Your task to perform on an android device: Go to Amazon Image 0: 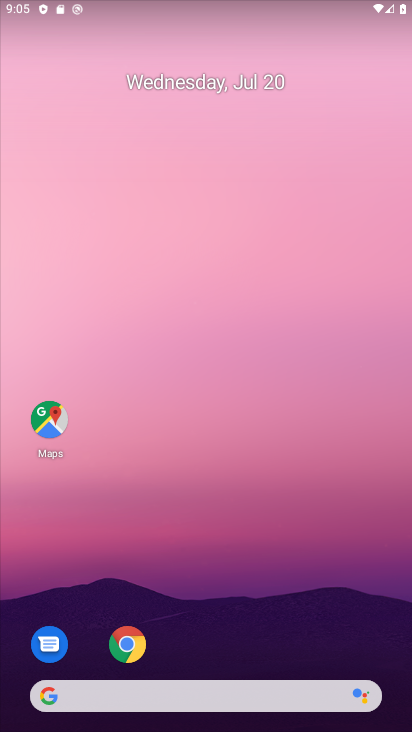
Step 0: click (183, 692)
Your task to perform on an android device: Go to Amazon Image 1: 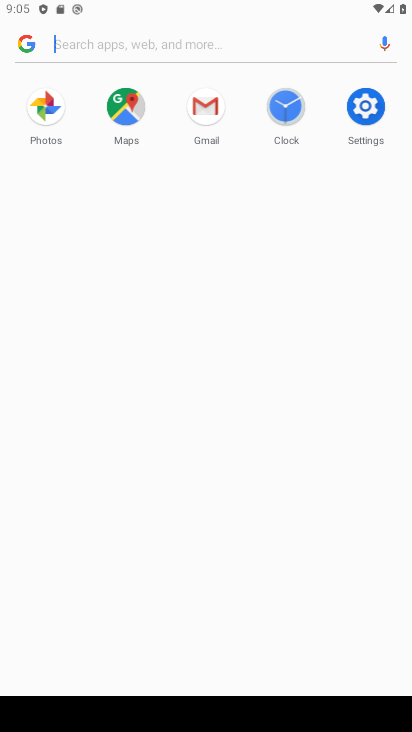
Step 1: type "Amazon"
Your task to perform on an android device: Go to Amazon Image 2: 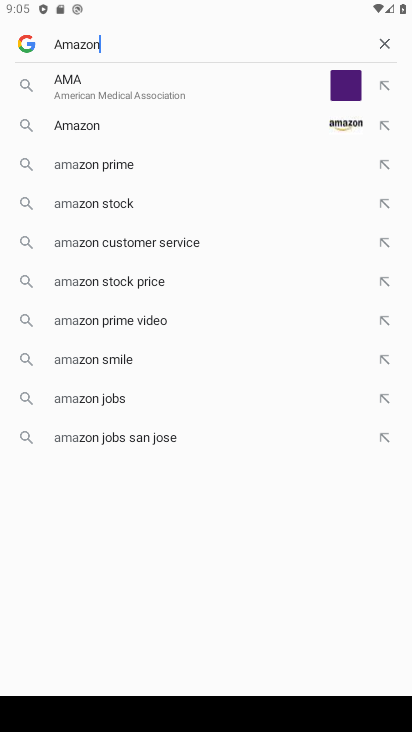
Step 2: type ""
Your task to perform on an android device: Go to Amazon Image 3: 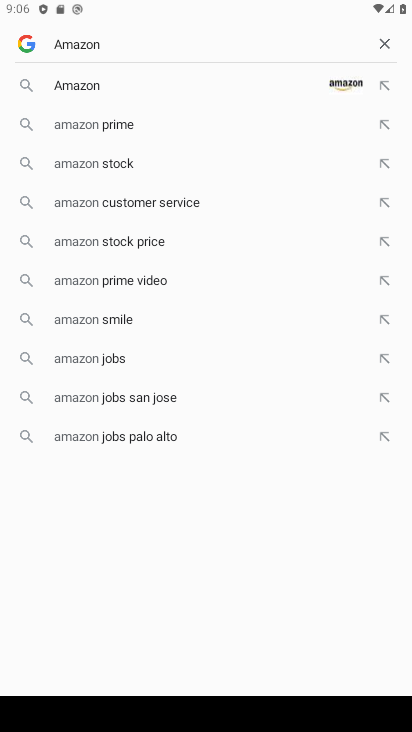
Step 3: press enter
Your task to perform on an android device: Go to Amazon Image 4: 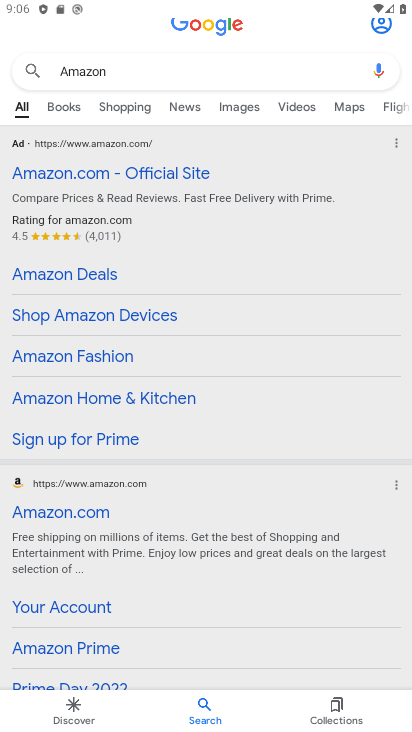
Step 4: click (66, 511)
Your task to perform on an android device: Go to Amazon Image 5: 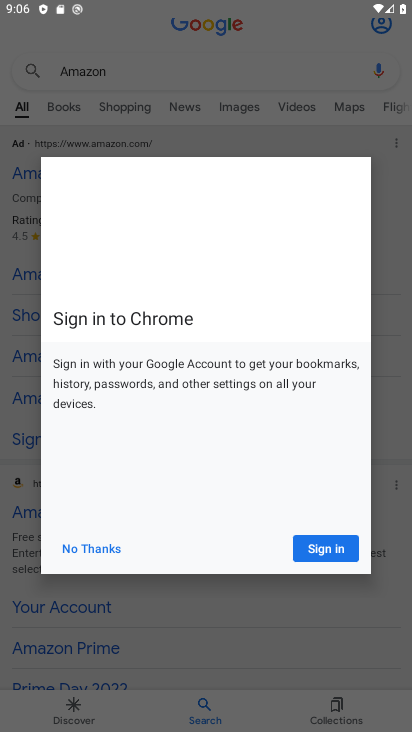
Step 5: click (76, 548)
Your task to perform on an android device: Go to Amazon Image 6: 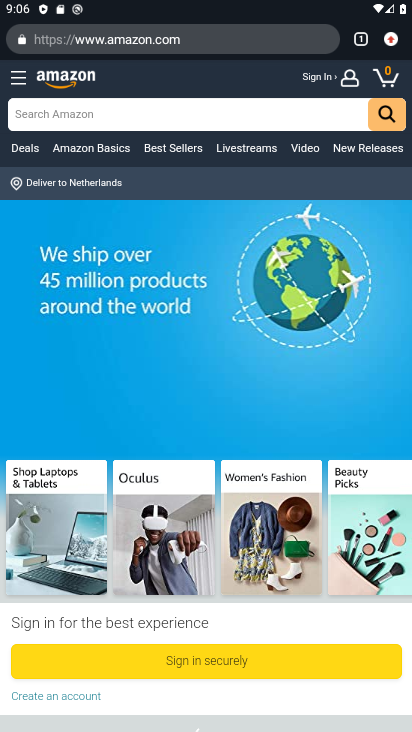
Step 6: task complete